Your task to perform on an android device: What is the recent news? Image 0: 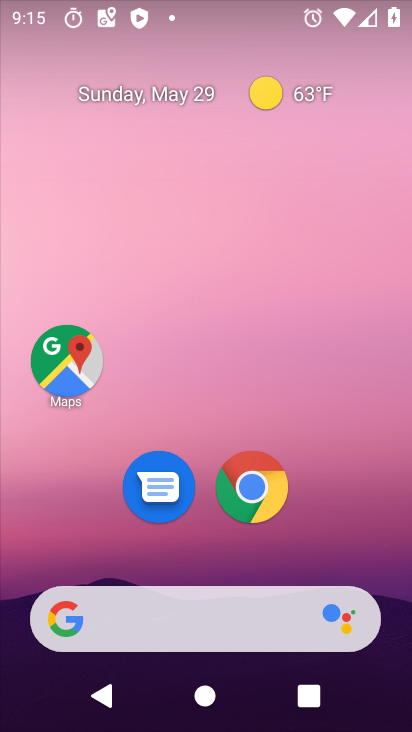
Step 0: drag from (239, 537) to (304, 66)
Your task to perform on an android device: What is the recent news? Image 1: 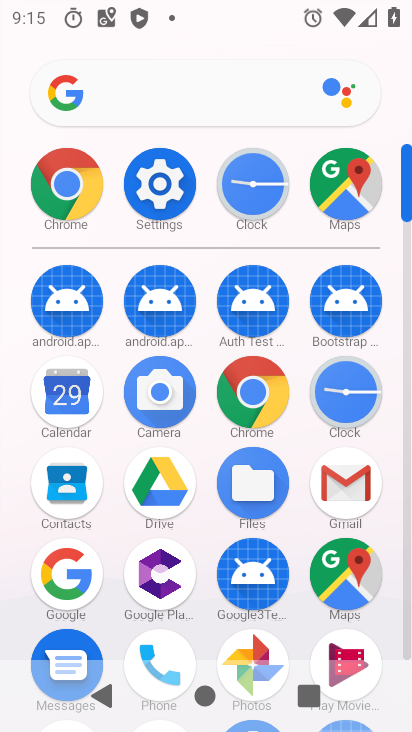
Step 1: drag from (229, 509) to (306, 154)
Your task to perform on an android device: What is the recent news? Image 2: 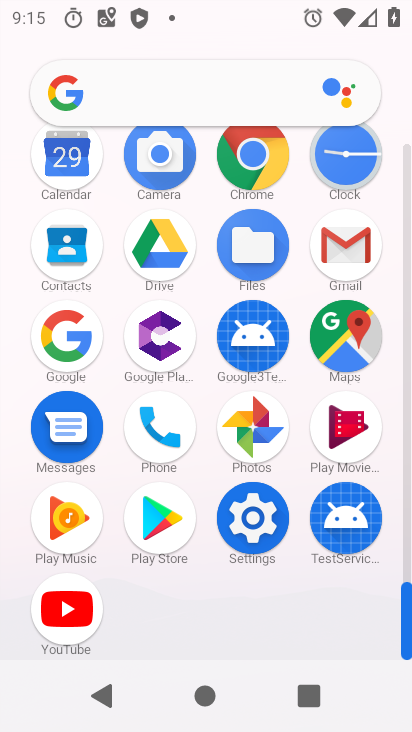
Step 2: click (36, 355)
Your task to perform on an android device: What is the recent news? Image 3: 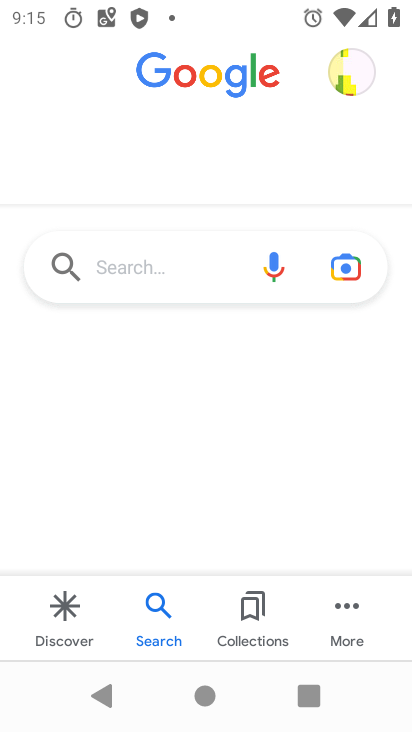
Step 3: click (177, 269)
Your task to perform on an android device: What is the recent news? Image 4: 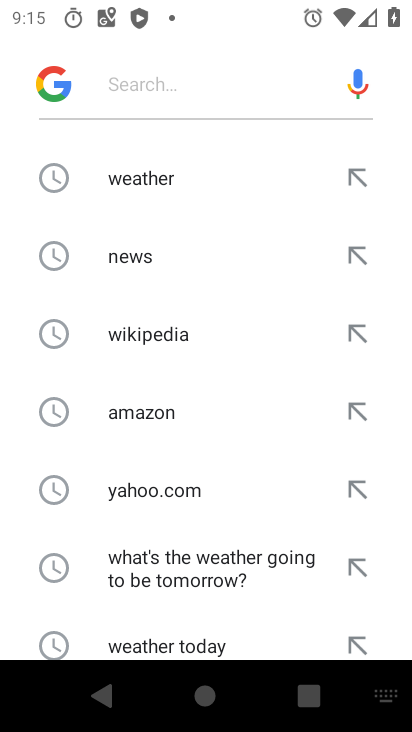
Step 4: drag from (217, 399) to (228, 596)
Your task to perform on an android device: What is the recent news? Image 5: 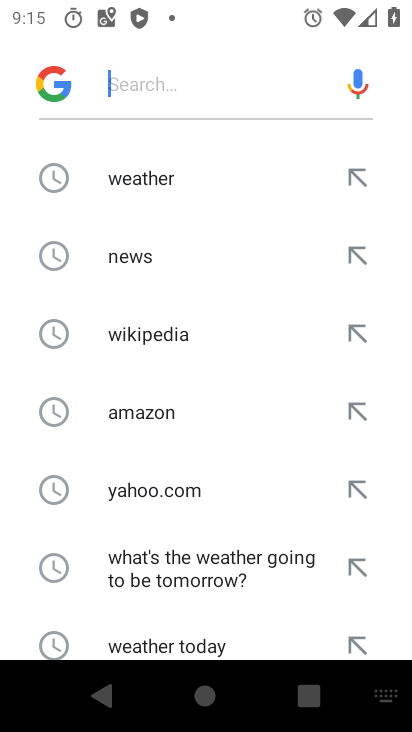
Step 5: click (209, 238)
Your task to perform on an android device: What is the recent news? Image 6: 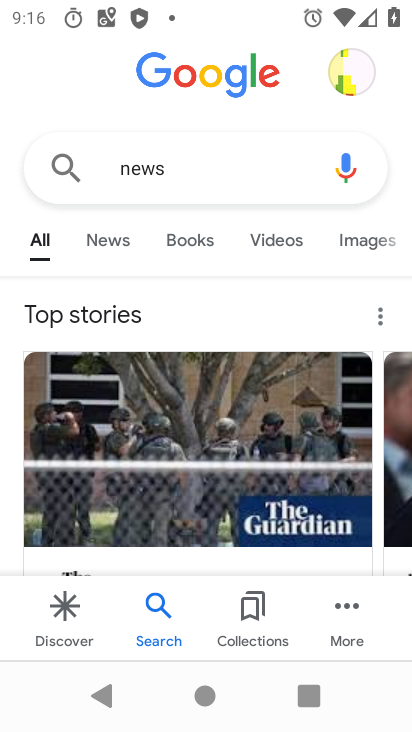
Step 6: click (103, 238)
Your task to perform on an android device: What is the recent news? Image 7: 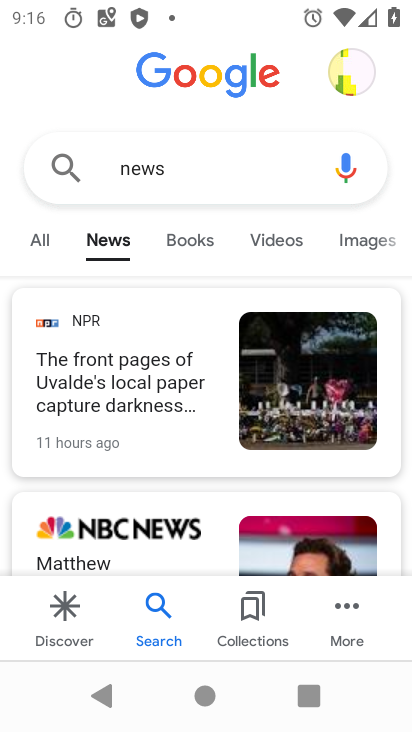
Step 7: task complete